Your task to perform on an android device: Open the phone app and click the voicemail tab. Image 0: 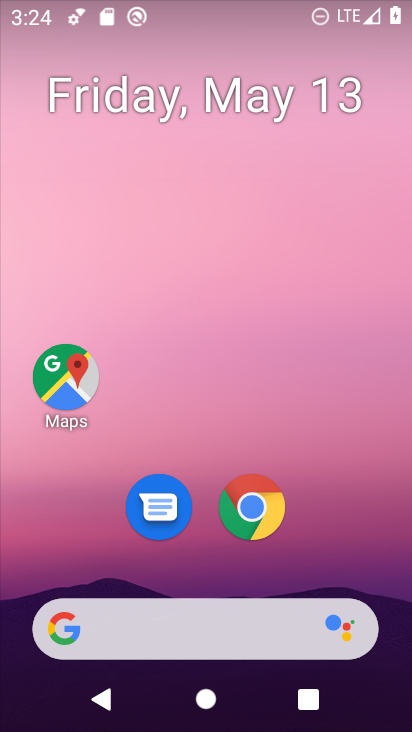
Step 0: drag from (307, 414) to (275, 285)
Your task to perform on an android device: Open the phone app and click the voicemail tab. Image 1: 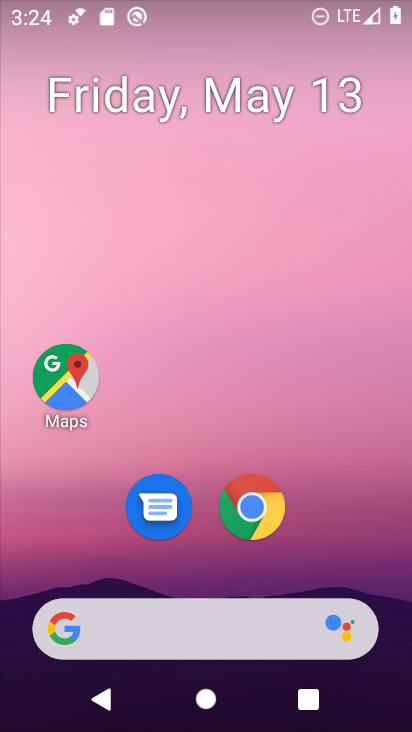
Step 1: drag from (298, 485) to (232, 187)
Your task to perform on an android device: Open the phone app and click the voicemail tab. Image 2: 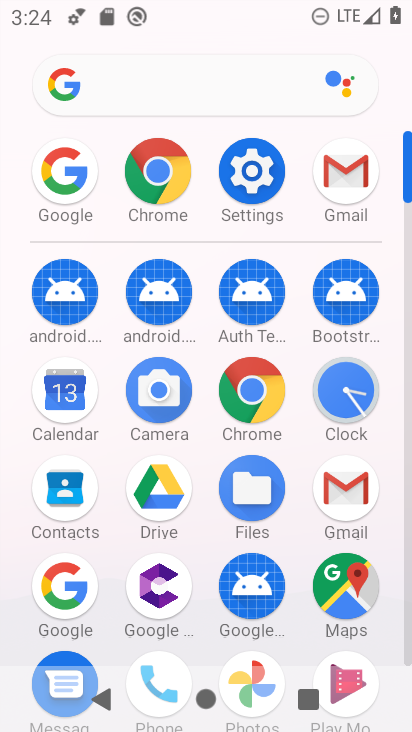
Step 2: drag from (186, 641) to (190, 403)
Your task to perform on an android device: Open the phone app and click the voicemail tab. Image 3: 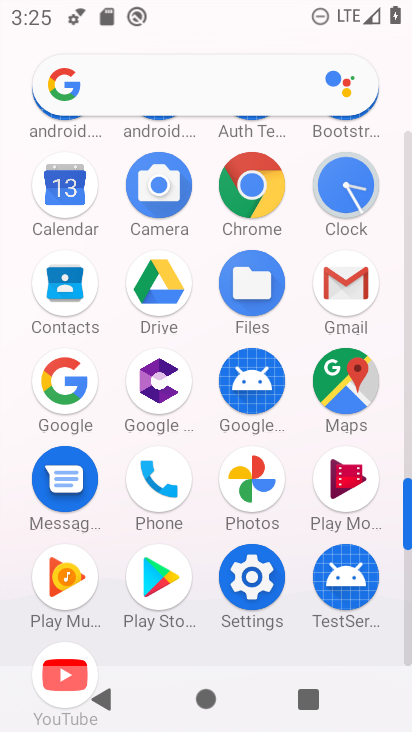
Step 3: click (137, 482)
Your task to perform on an android device: Open the phone app and click the voicemail tab. Image 4: 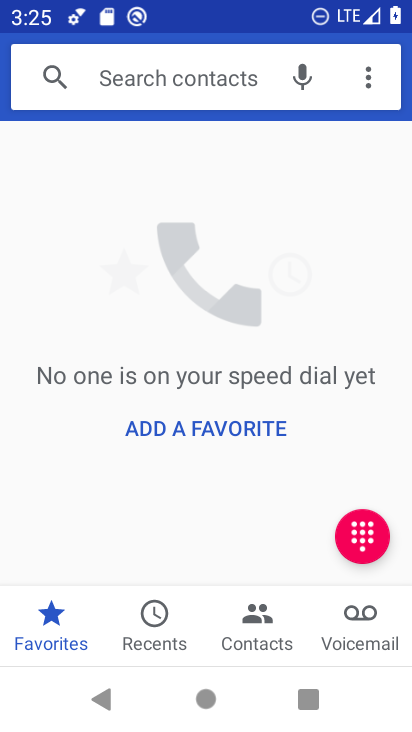
Step 4: click (377, 628)
Your task to perform on an android device: Open the phone app and click the voicemail tab. Image 5: 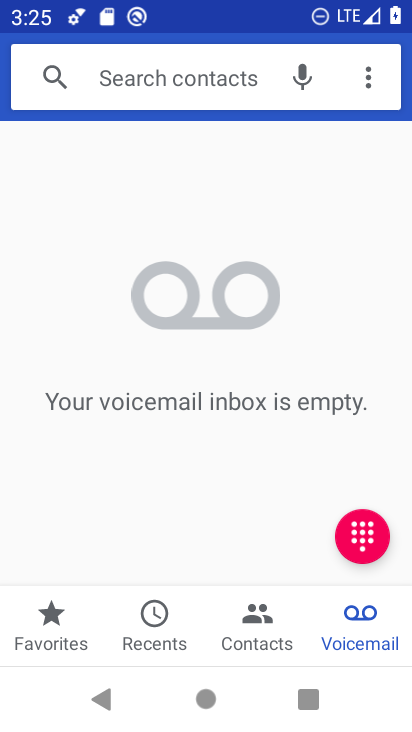
Step 5: task complete